Your task to perform on an android device: Empty the shopping cart on newegg.com. Search for "logitech g pro" on newegg.com, select the first entry, and add it to the cart. Image 0: 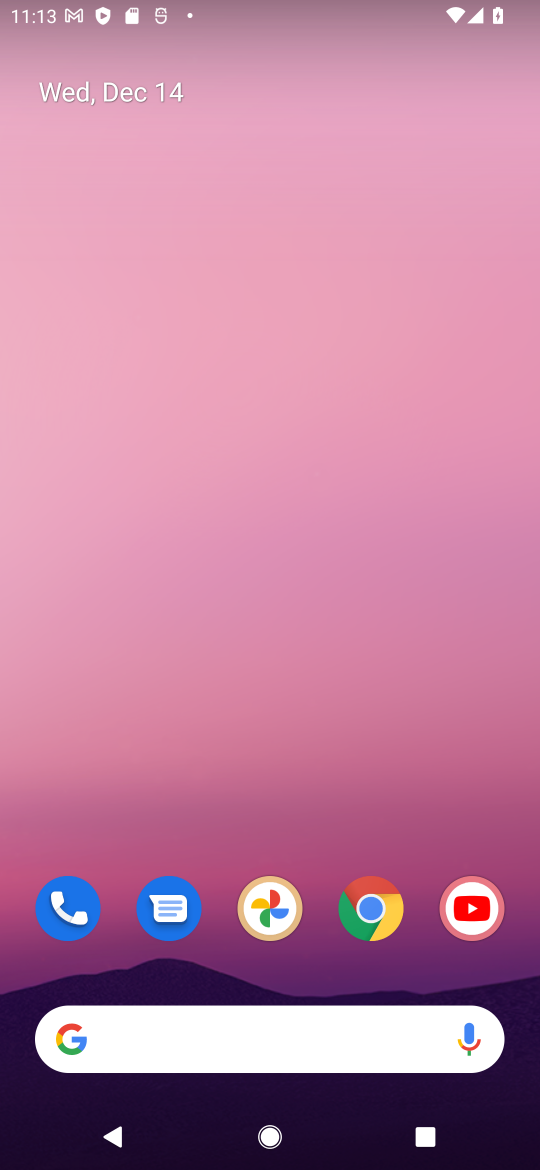
Step 0: click (376, 914)
Your task to perform on an android device: Empty the shopping cart on newegg.com. Search for "logitech g pro" on newegg.com, select the first entry, and add it to the cart. Image 1: 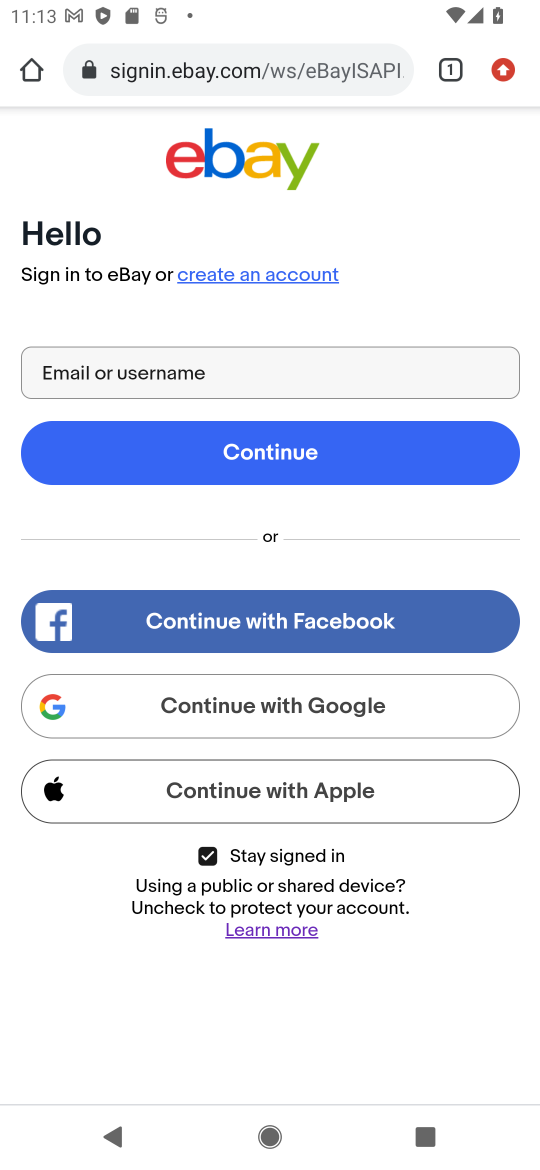
Step 1: click (204, 73)
Your task to perform on an android device: Empty the shopping cart on newegg.com. Search for "logitech g pro" on newegg.com, select the first entry, and add it to the cart. Image 2: 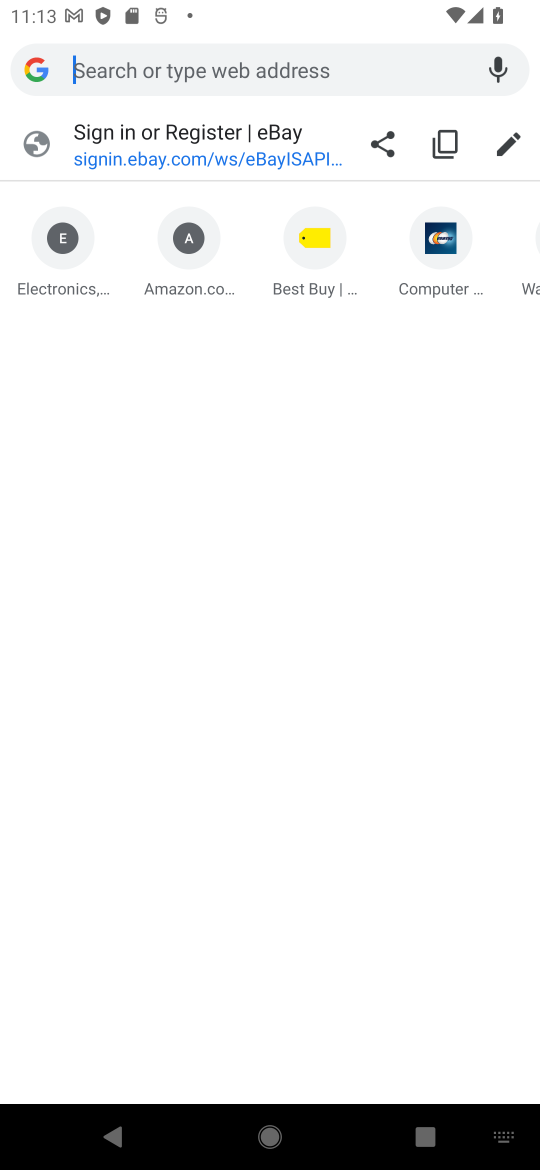
Step 2: click (436, 285)
Your task to perform on an android device: Empty the shopping cart on newegg.com. Search for "logitech g pro" on newegg.com, select the first entry, and add it to the cart. Image 3: 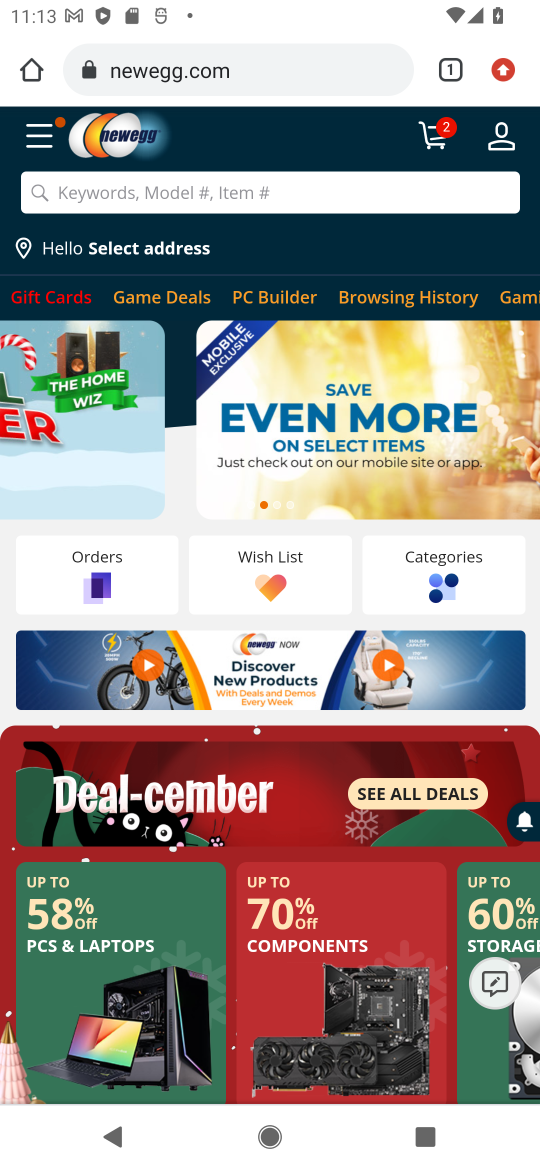
Step 3: click (436, 148)
Your task to perform on an android device: Empty the shopping cart on newegg.com. Search for "logitech g pro" on newegg.com, select the first entry, and add it to the cart. Image 4: 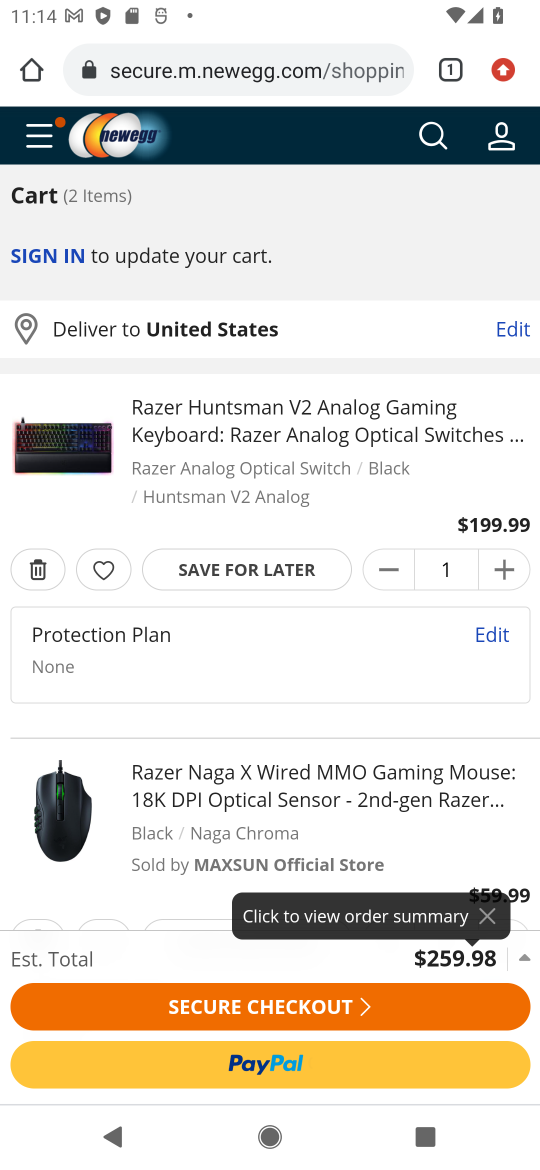
Step 4: click (38, 565)
Your task to perform on an android device: Empty the shopping cart on newegg.com. Search for "logitech g pro" on newegg.com, select the first entry, and add it to the cart. Image 5: 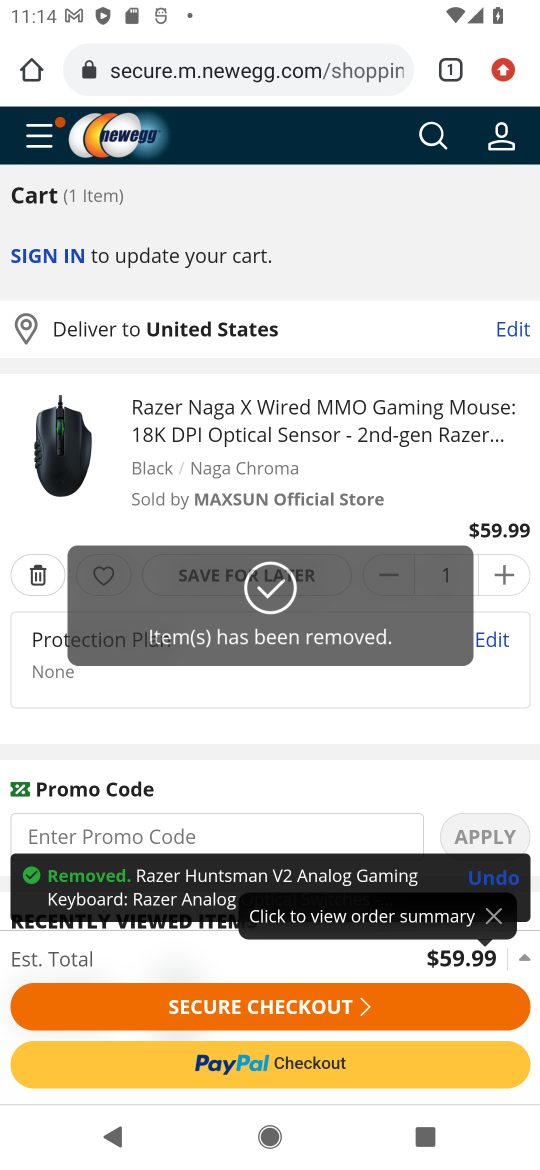
Step 5: click (38, 571)
Your task to perform on an android device: Empty the shopping cart on newegg.com. Search for "logitech g pro" on newegg.com, select the first entry, and add it to the cart. Image 6: 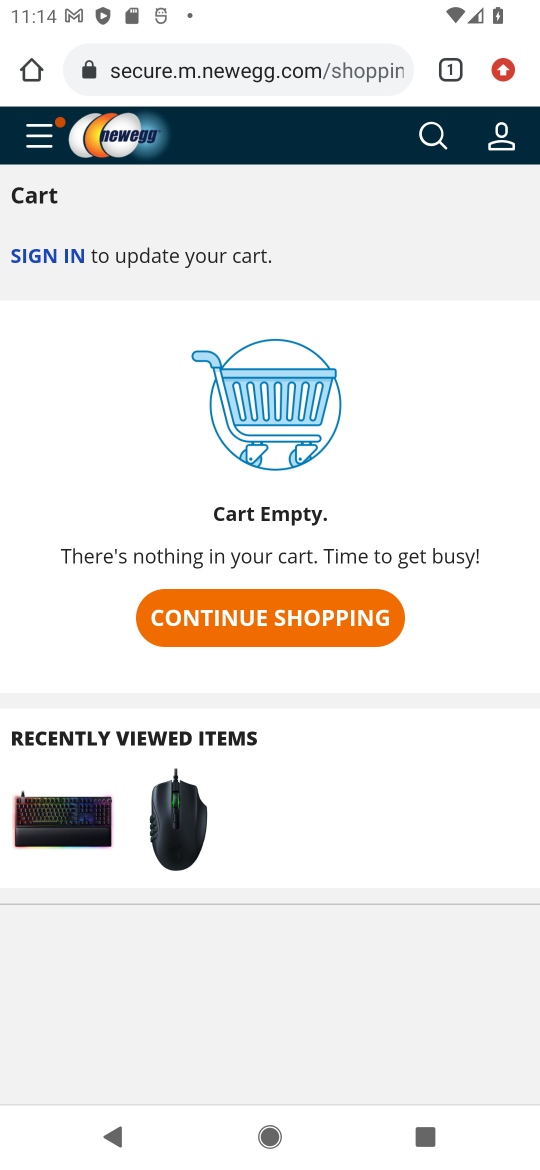
Step 6: click (425, 133)
Your task to perform on an android device: Empty the shopping cart on newegg.com. Search for "logitech g pro" on newegg.com, select the first entry, and add it to the cart. Image 7: 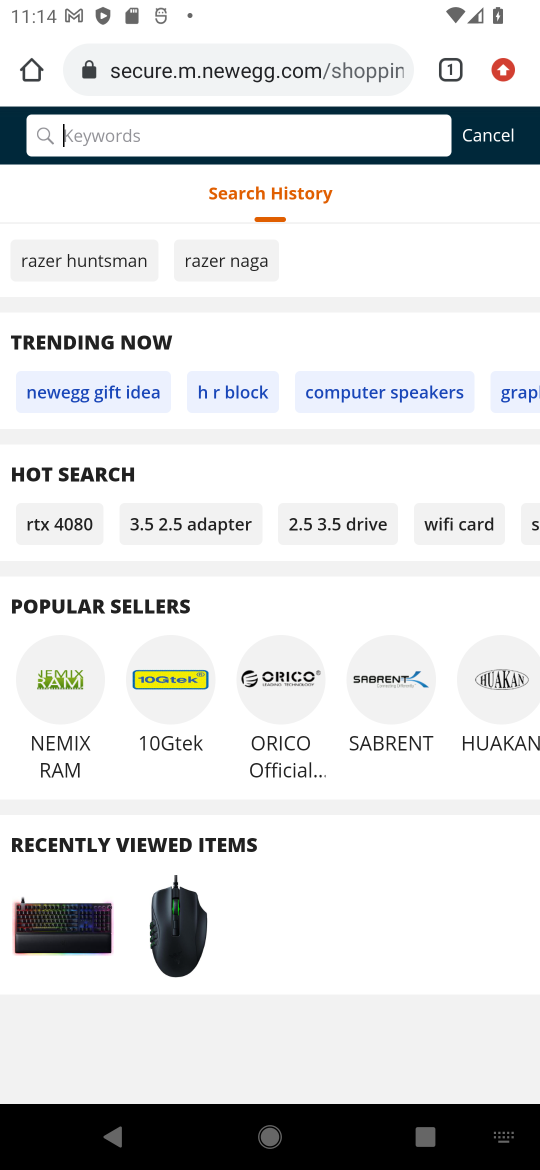
Step 7: type "logitech g pro"
Your task to perform on an android device: Empty the shopping cart on newegg.com. Search for "logitech g pro" on newegg.com, select the first entry, and add it to the cart. Image 8: 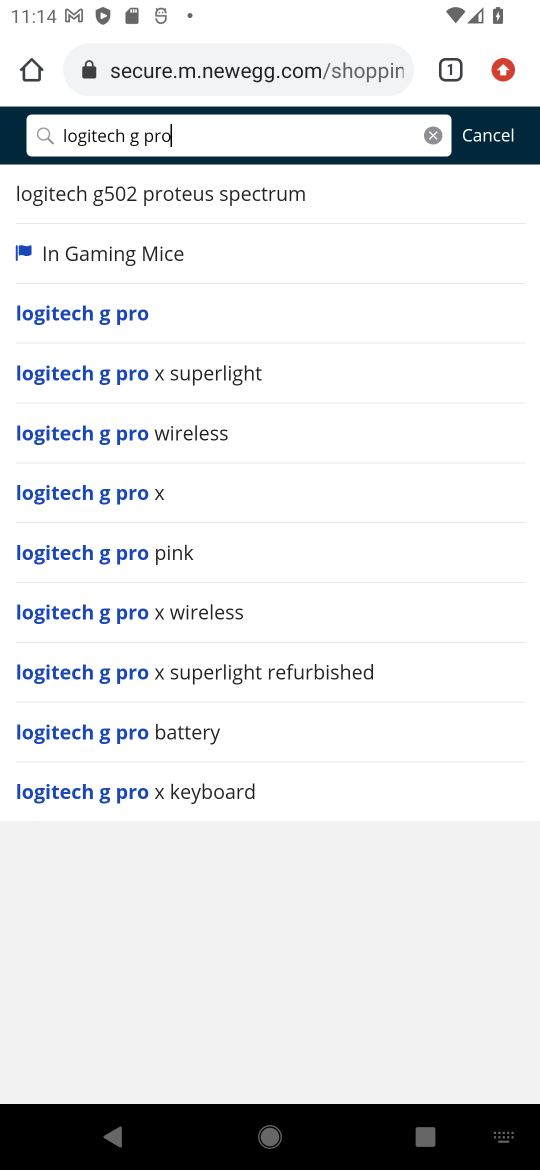
Step 8: click (73, 315)
Your task to perform on an android device: Empty the shopping cart on newegg.com. Search for "logitech g pro" on newegg.com, select the first entry, and add it to the cart. Image 9: 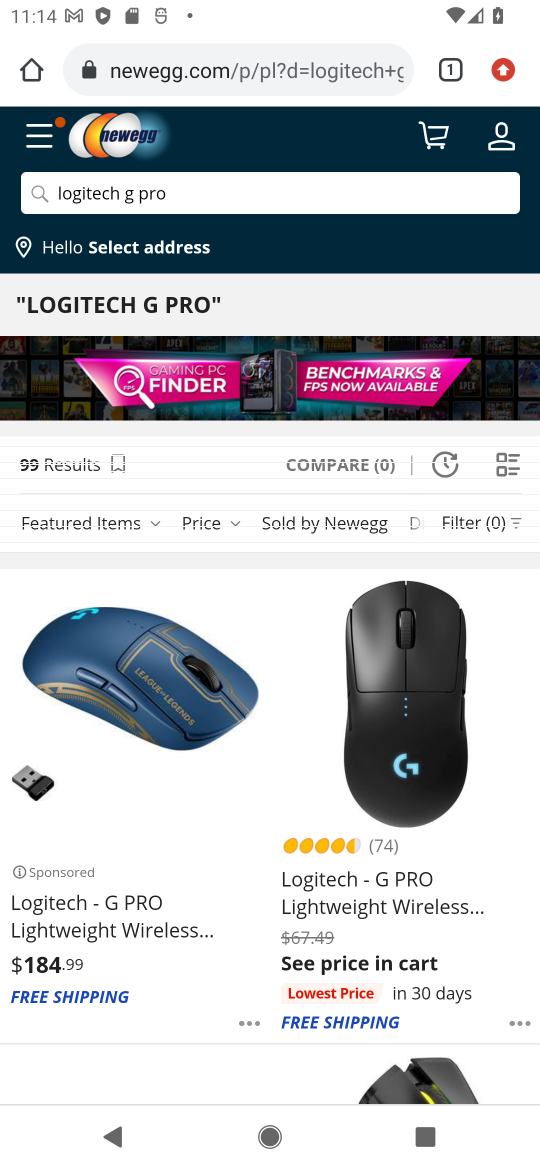
Step 9: click (91, 924)
Your task to perform on an android device: Empty the shopping cart on newegg.com. Search for "logitech g pro" on newegg.com, select the first entry, and add it to the cart. Image 10: 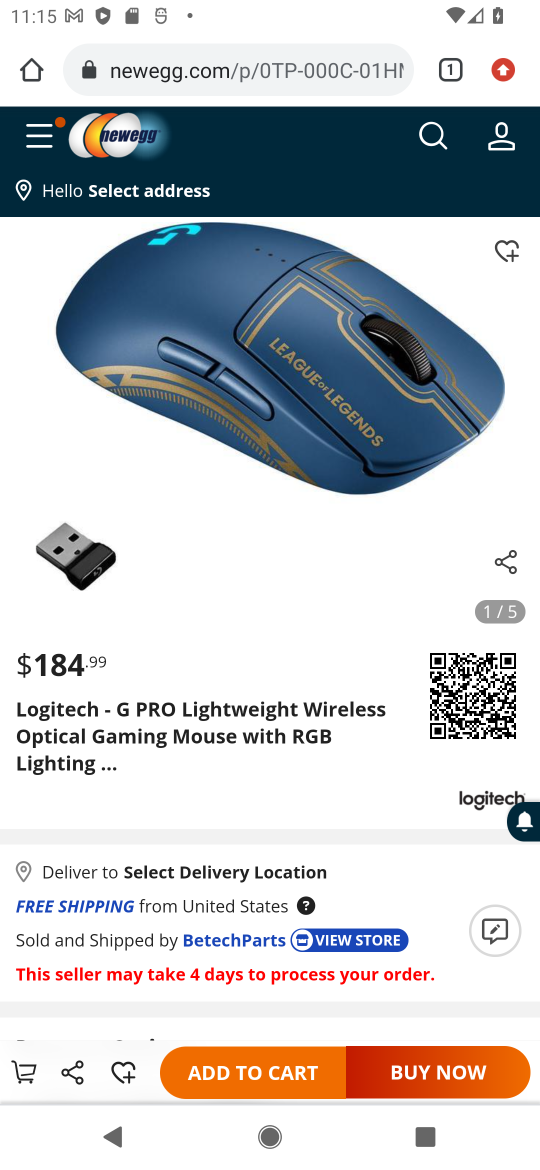
Step 10: drag from (142, 888) to (149, 816)
Your task to perform on an android device: Empty the shopping cart on newegg.com. Search for "logitech g pro" on newegg.com, select the first entry, and add it to the cart. Image 11: 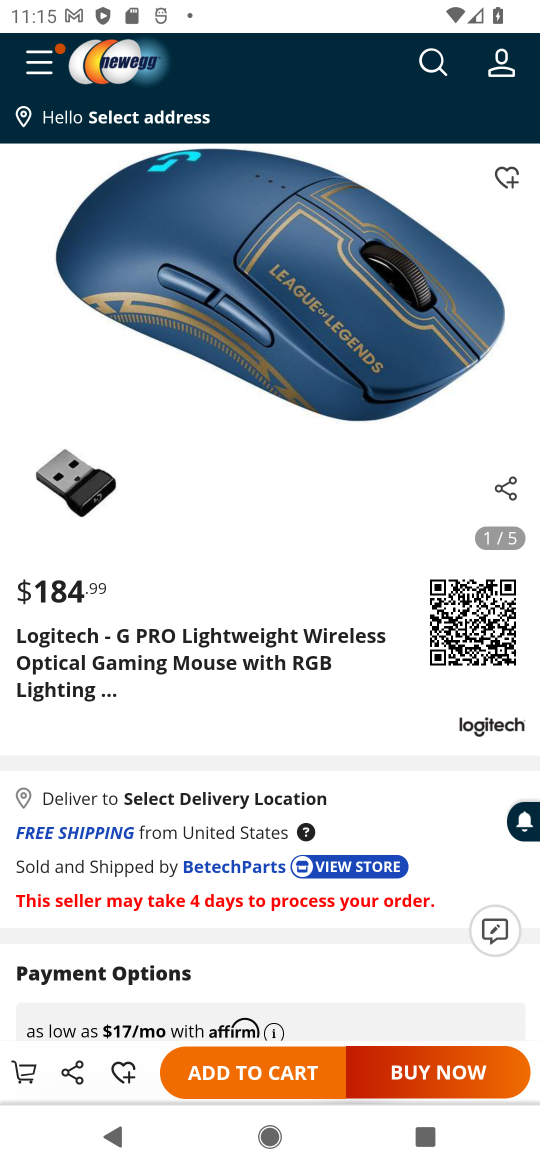
Step 11: click (236, 1069)
Your task to perform on an android device: Empty the shopping cart on newegg.com. Search for "logitech g pro" on newegg.com, select the first entry, and add it to the cart. Image 12: 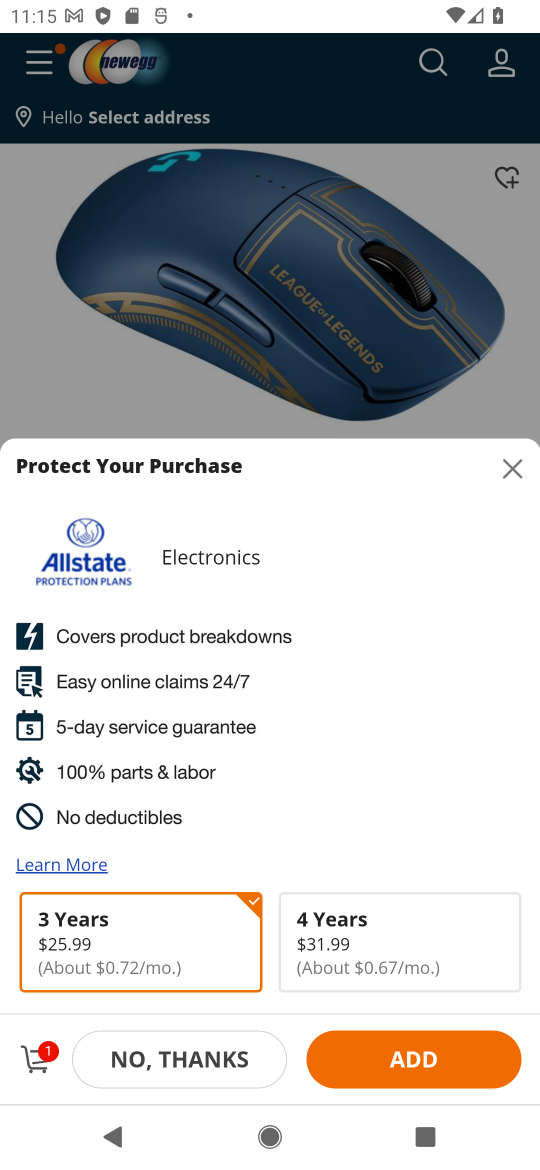
Step 12: task complete